Your task to perform on an android device: Open notification settings Image 0: 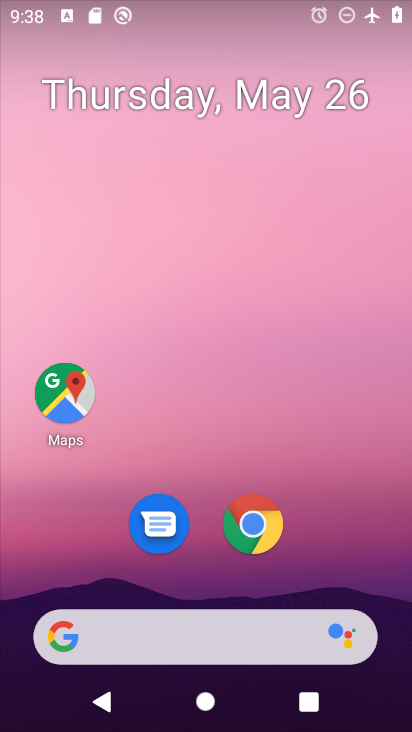
Step 0: drag from (304, 538) to (327, 15)
Your task to perform on an android device: Open notification settings Image 1: 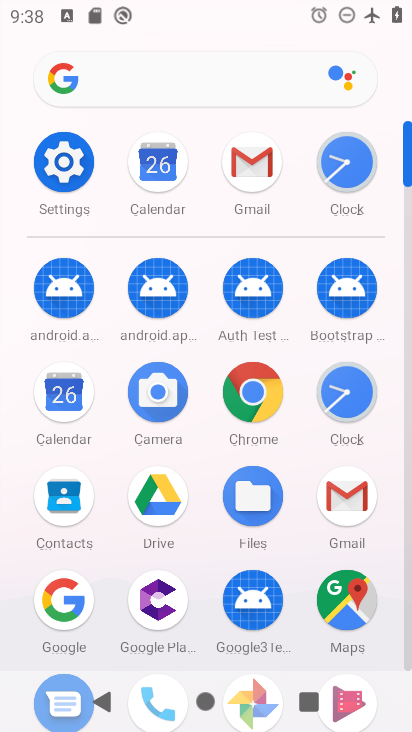
Step 1: click (73, 154)
Your task to perform on an android device: Open notification settings Image 2: 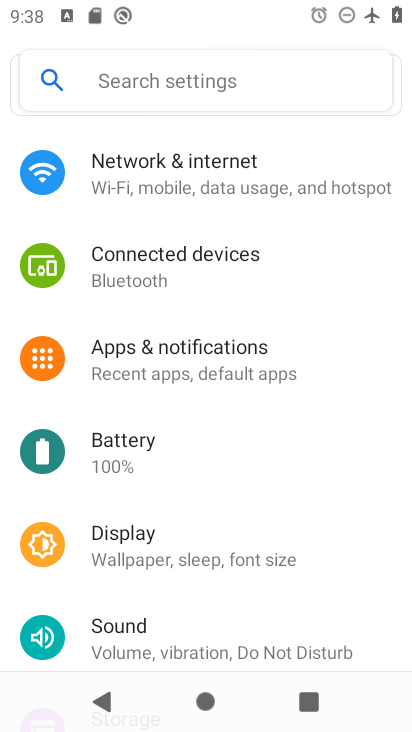
Step 2: click (205, 370)
Your task to perform on an android device: Open notification settings Image 3: 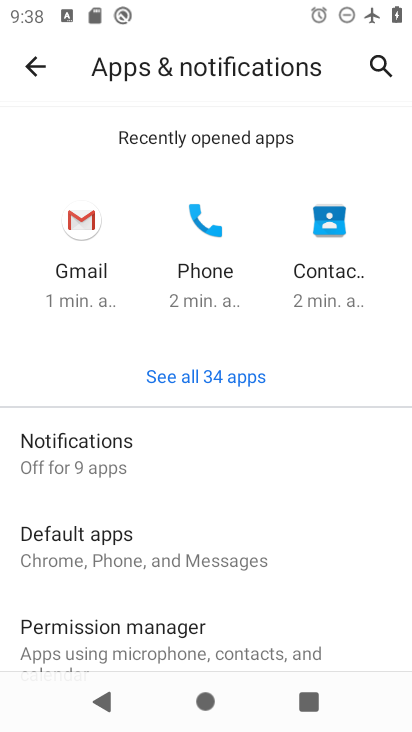
Step 3: click (181, 454)
Your task to perform on an android device: Open notification settings Image 4: 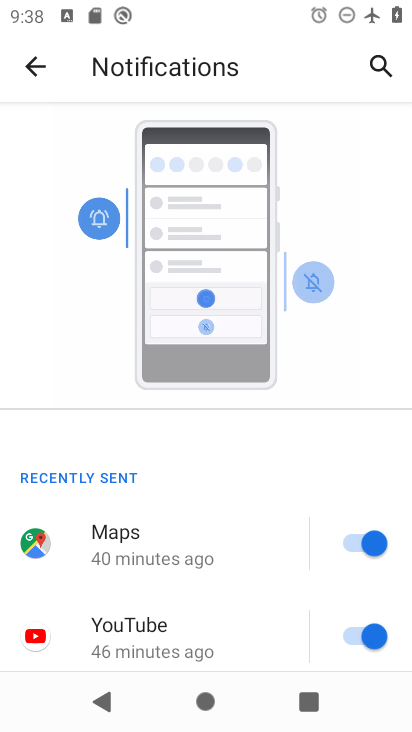
Step 4: task complete